Your task to perform on an android device: clear history in the chrome app Image 0: 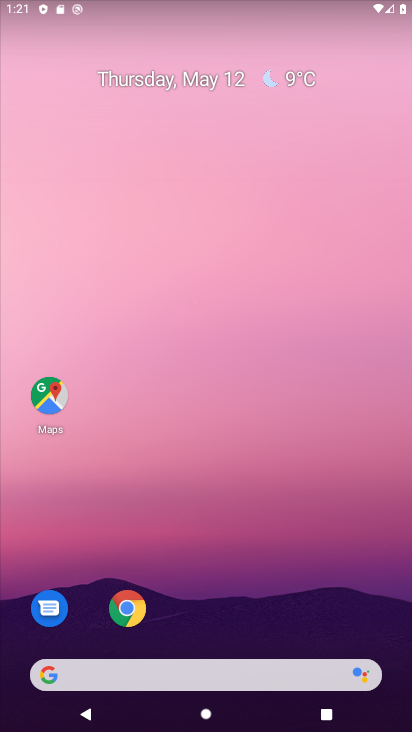
Step 0: click (136, 605)
Your task to perform on an android device: clear history in the chrome app Image 1: 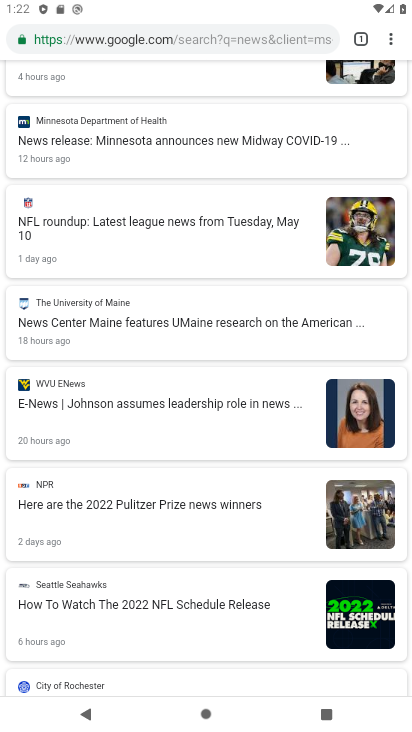
Step 1: click (387, 38)
Your task to perform on an android device: clear history in the chrome app Image 2: 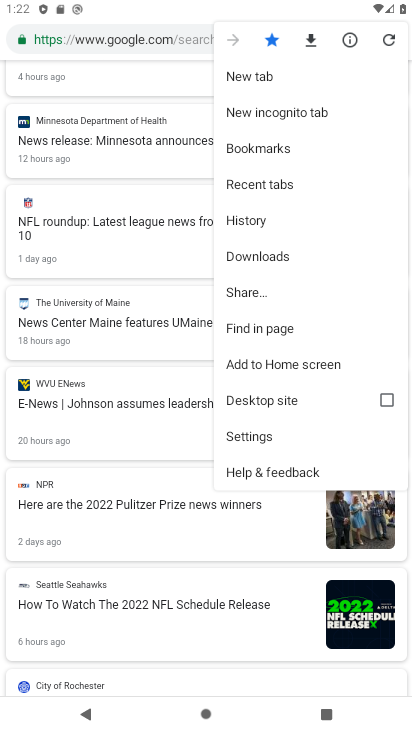
Step 2: click (248, 225)
Your task to perform on an android device: clear history in the chrome app Image 3: 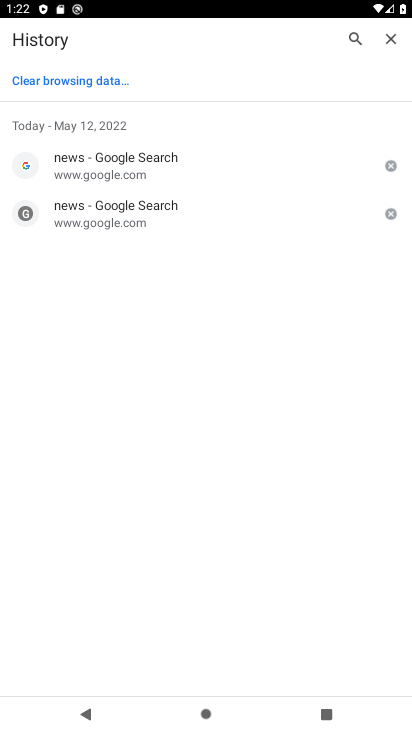
Step 3: click (106, 86)
Your task to perform on an android device: clear history in the chrome app Image 4: 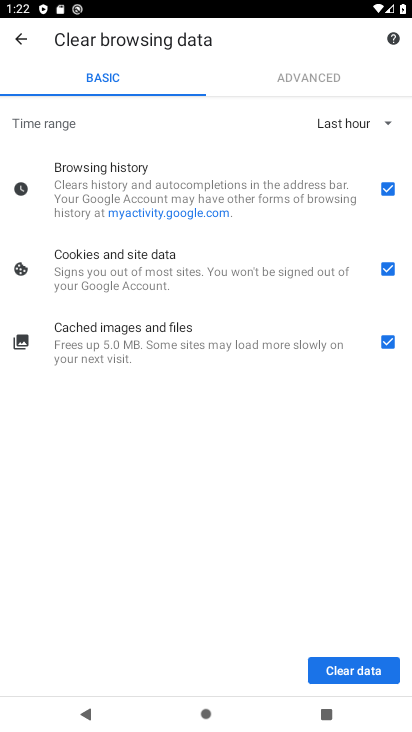
Step 4: click (390, 270)
Your task to perform on an android device: clear history in the chrome app Image 5: 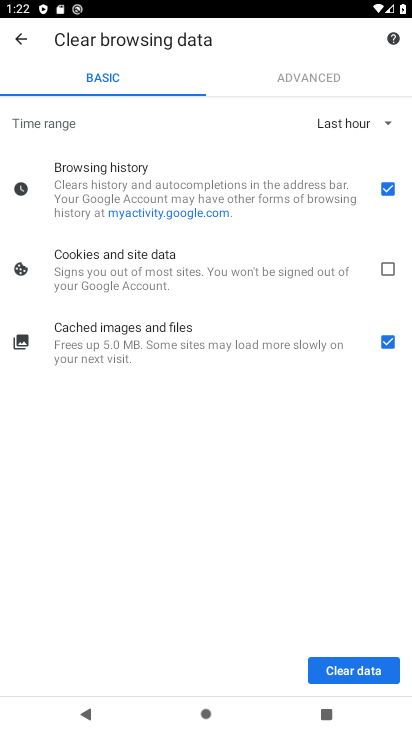
Step 5: click (390, 338)
Your task to perform on an android device: clear history in the chrome app Image 6: 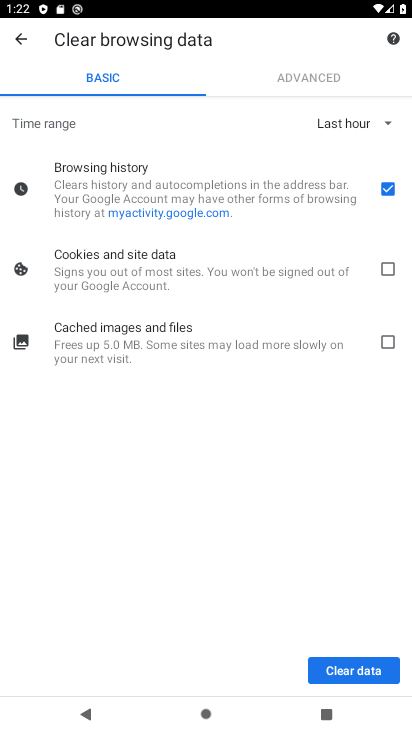
Step 6: click (332, 666)
Your task to perform on an android device: clear history in the chrome app Image 7: 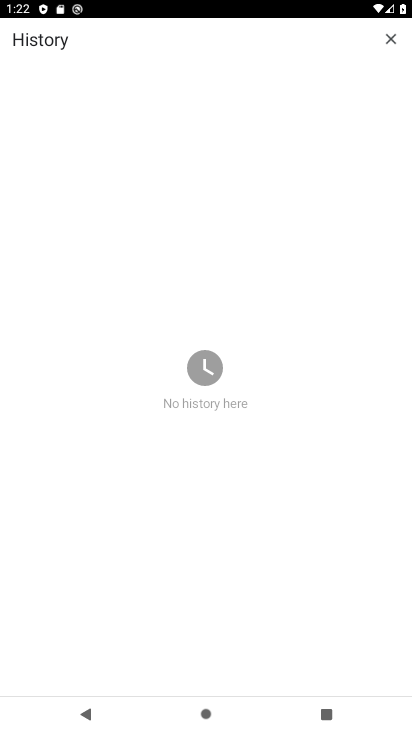
Step 7: task complete